Your task to perform on an android device: Go to Maps Image 0: 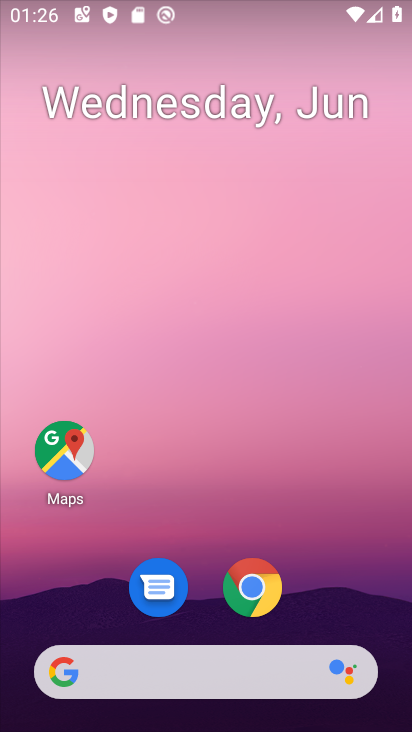
Step 0: click (68, 453)
Your task to perform on an android device: Go to Maps Image 1: 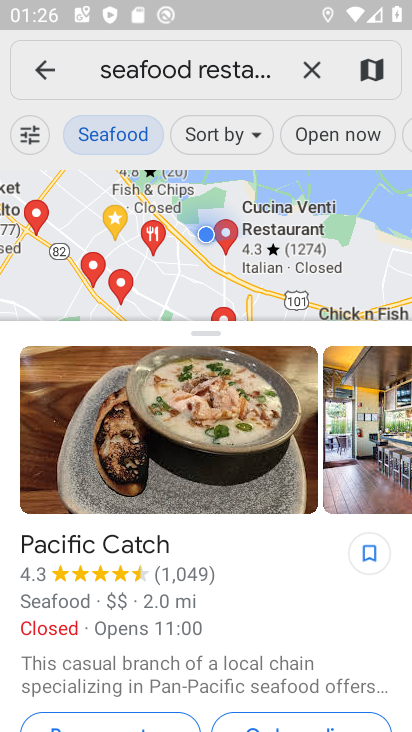
Step 1: task complete